Your task to perform on an android device: open app "Messenger Lite" (install if not already installed) Image 0: 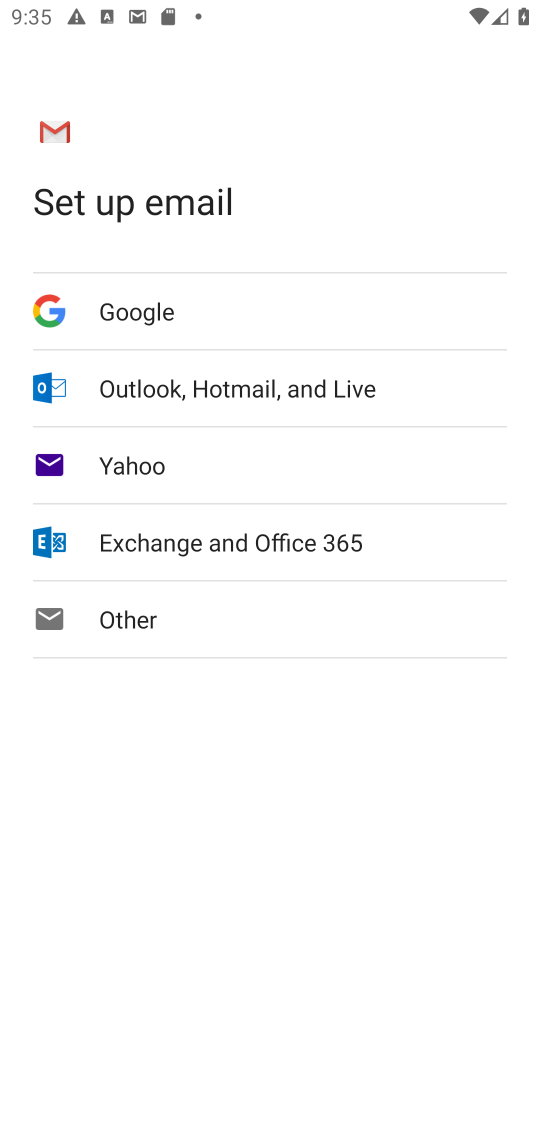
Step 0: press back button
Your task to perform on an android device: open app "Messenger Lite" (install if not already installed) Image 1: 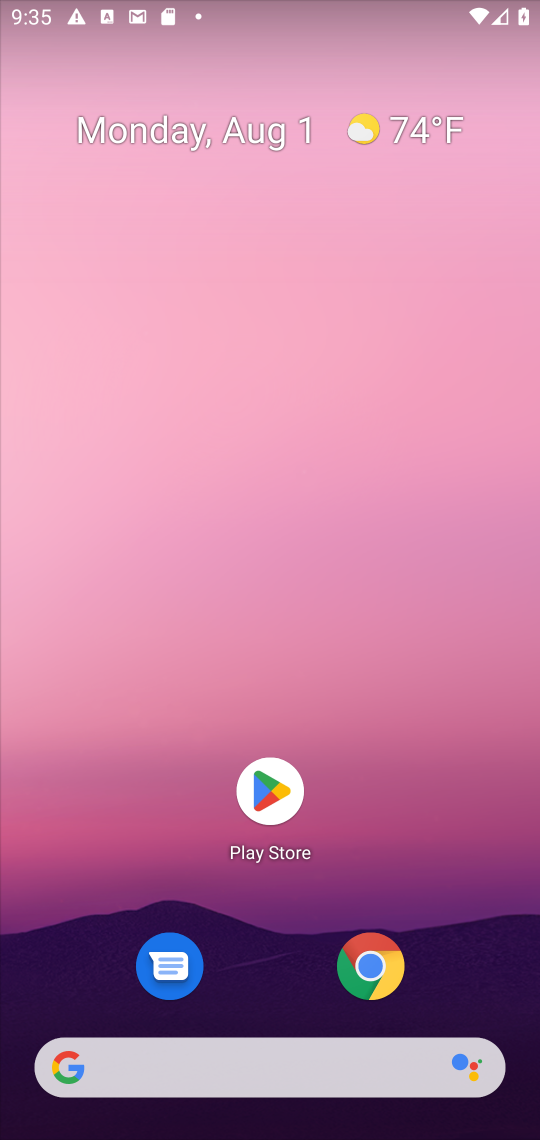
Step 1: click (265, 787)
Your task to perform on an android device: open app "Messenger Lite" (install if not already installed) Image 2: 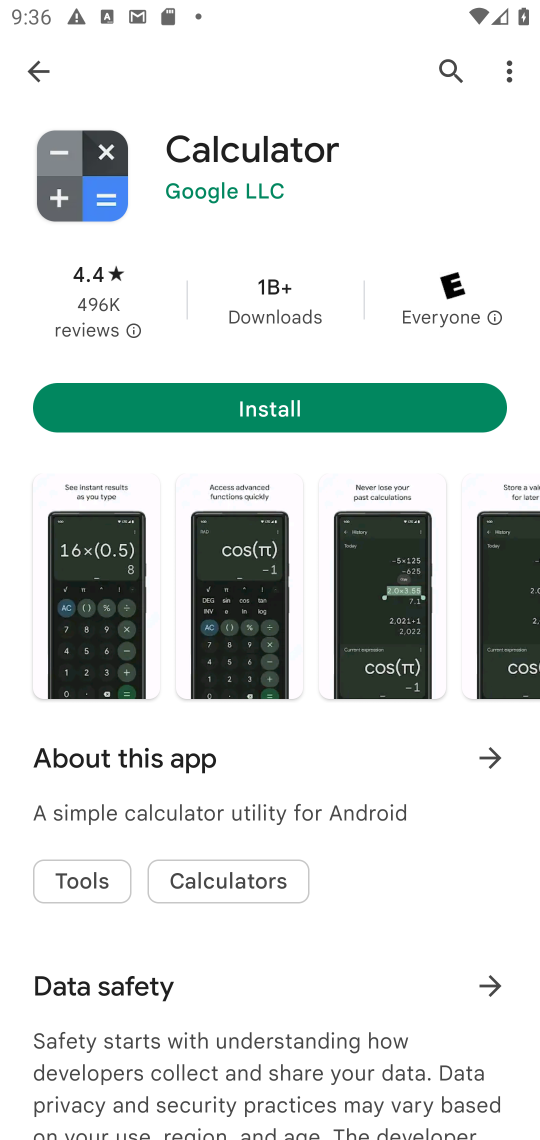
Step 2: click (442, 71)
Your task to perform on an android device: open app "Messenger Lite" (install if not already installed) Image 3: 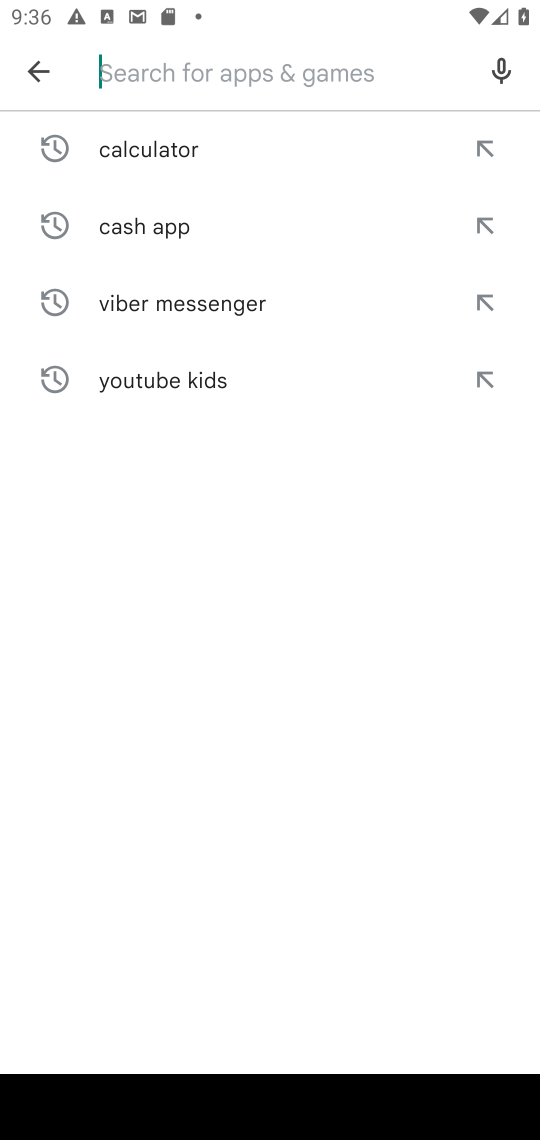
Step 3: type "Messenger Lite"
Your task to perform on an android device: open app "Messenger Lite" (install if not already installed) Image 4: 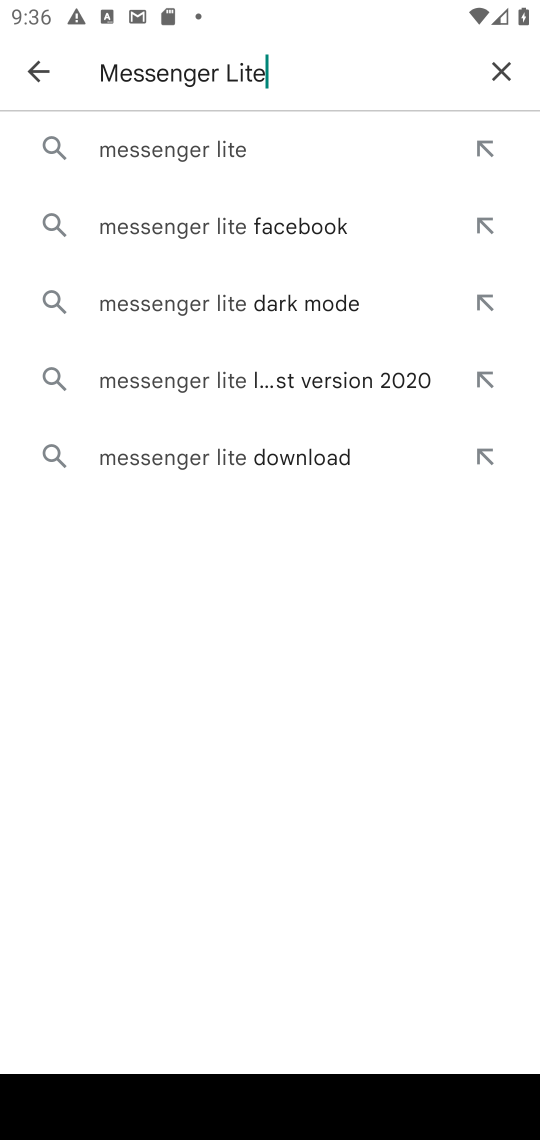
Step 4: click (155, 156)
Your task to perform on an android device: open app "Messenger Lite" (install if not already installed) Image 5: 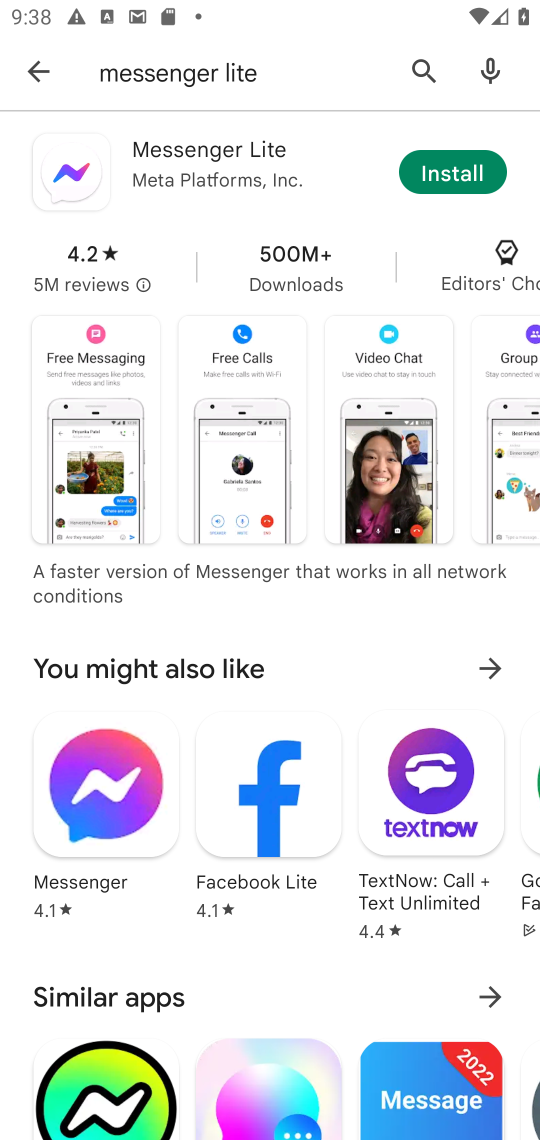
Step 5: click (445, 158)
Your task to perform on an android device: open app "Messenger Lite" (install if not already installed) Image 6: 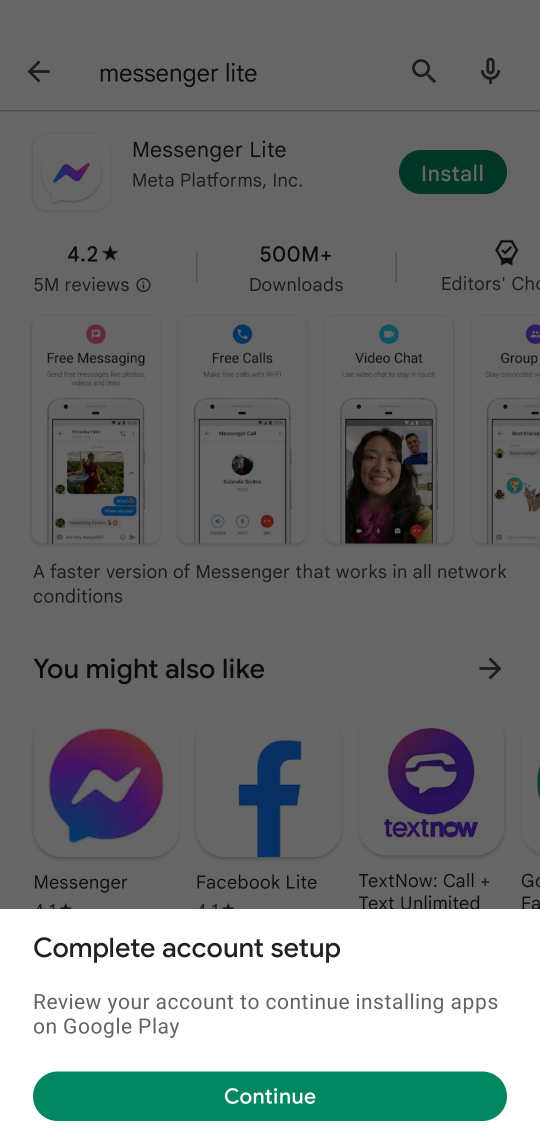
Step 6: click (319, 1091)
Your task to perform on an android device: open app "Messenger Lite" (install if not already installed) Image 7: 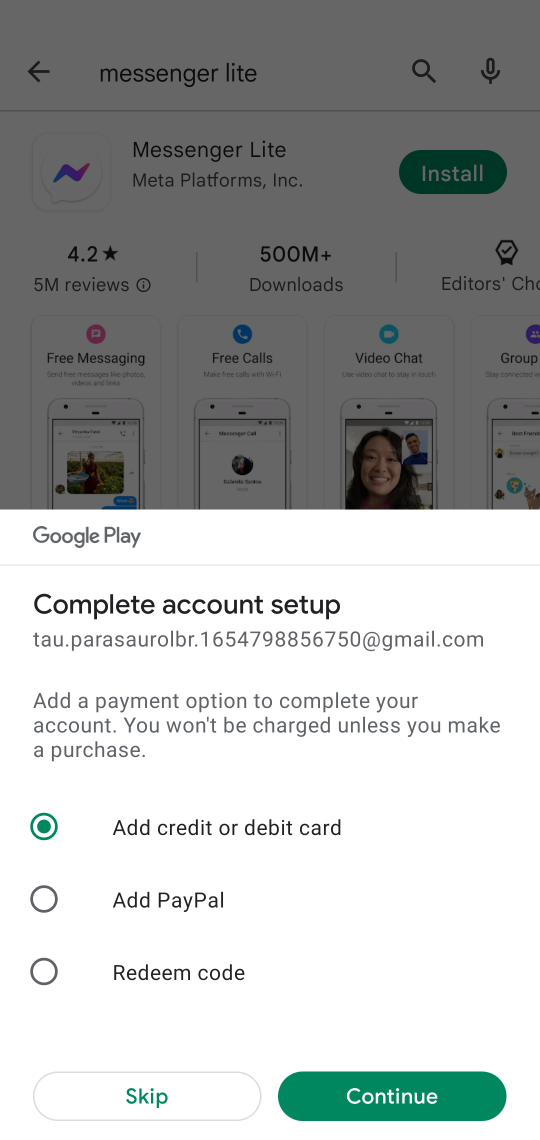
Step 7: click (126, 1093)
Your task to perform on an android device: open app "Messenger Lite" (install if not already installed) Image 8: 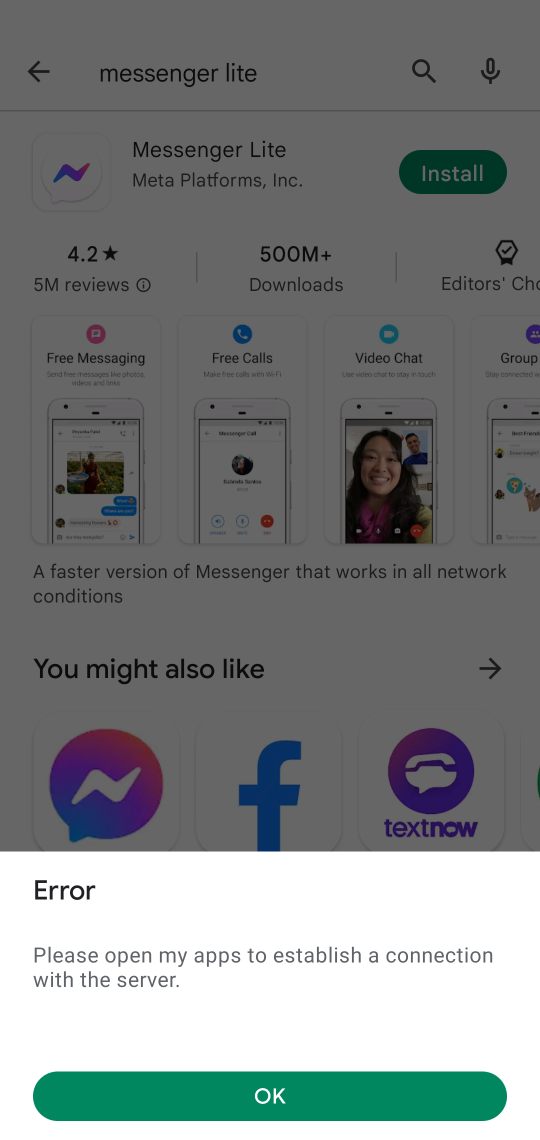
Step 8: click (251, 1096)
Your task to perform on an android device: open app "Messenger Lite" (install if not already installed) Image 9: 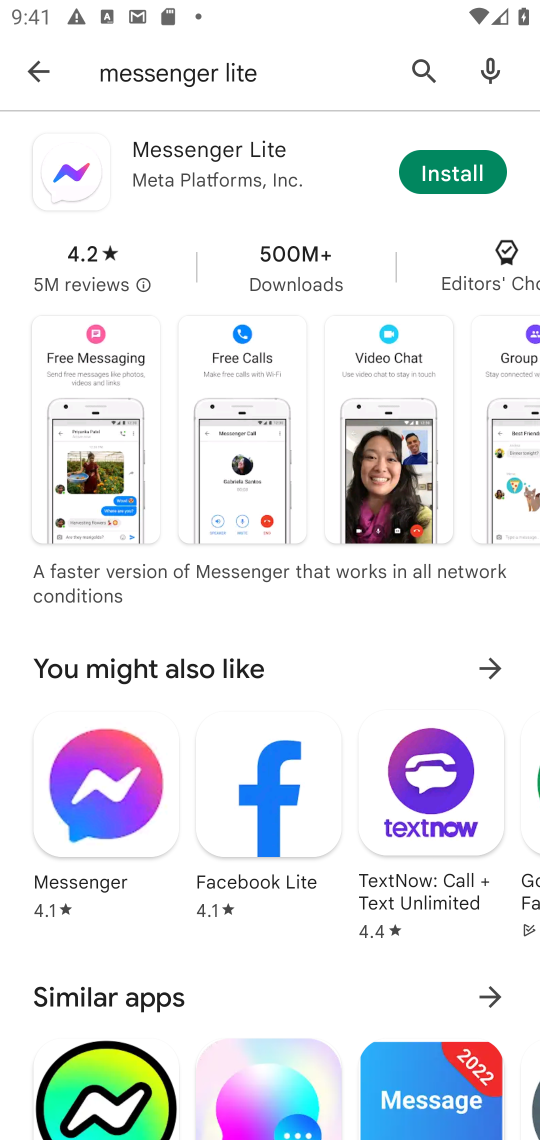
Step 9: task complete